Your task to perform on an android device: check the backup settings in the google photos Image 0: 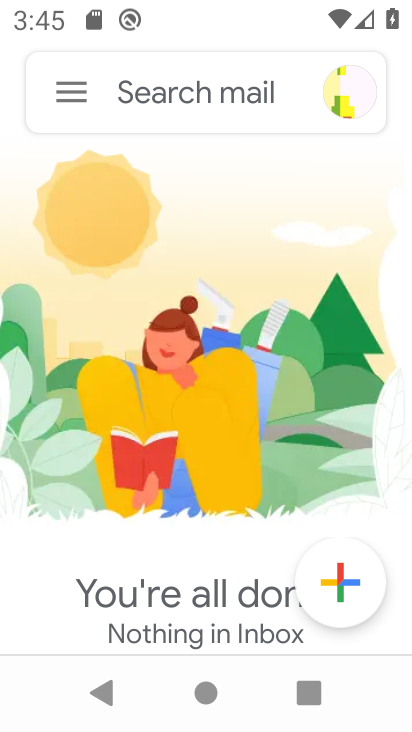
Step 0: press home button
Your task to perform on an android device: check the backup settings in the google photos Image 1: 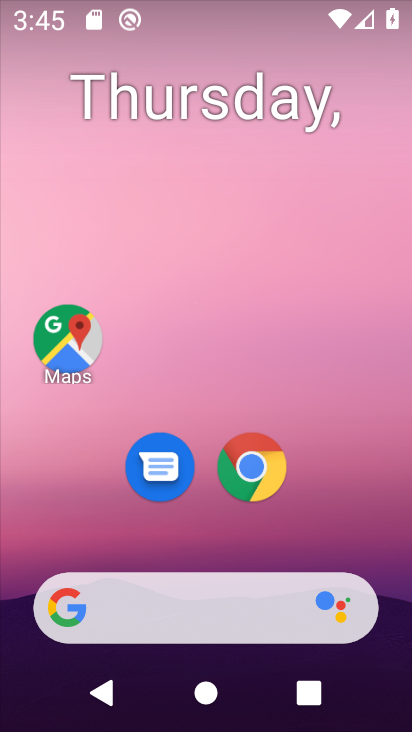
Step 1: drag from (173, 538) to (274, 5)
Your task to perform on an android device: check the backup settings in the google photos Image 2: 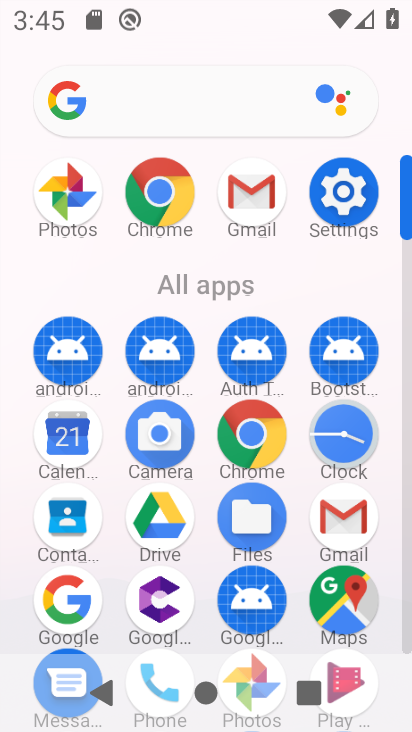
Step 2: click (344, 196)
Your task to perform on an android device: check the backup settings in the google photos Image 3: 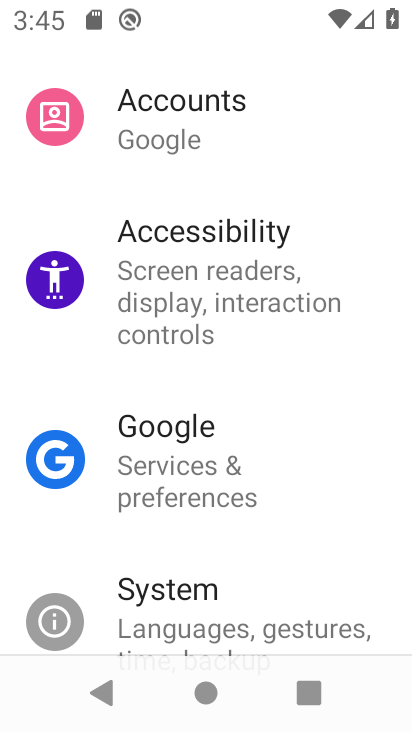
Step 3: press home button
Your task to perform on an android device: check the backup settings in the google photos Image 4: 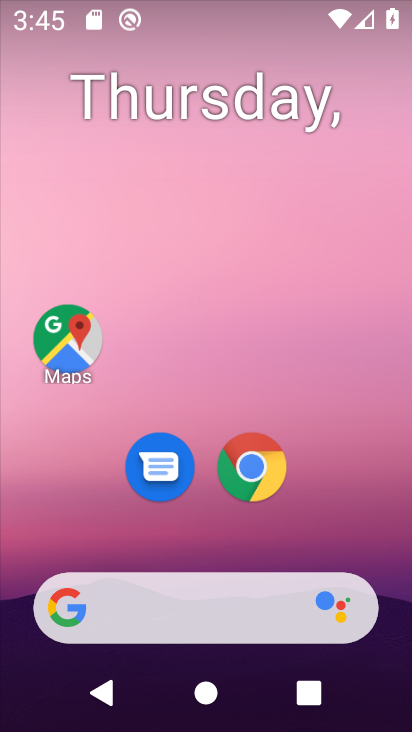
Step 4: drag from (176, 526) to (342, 11)
Your task to perform on an android device: check the backup settings in the google photos Image 5: 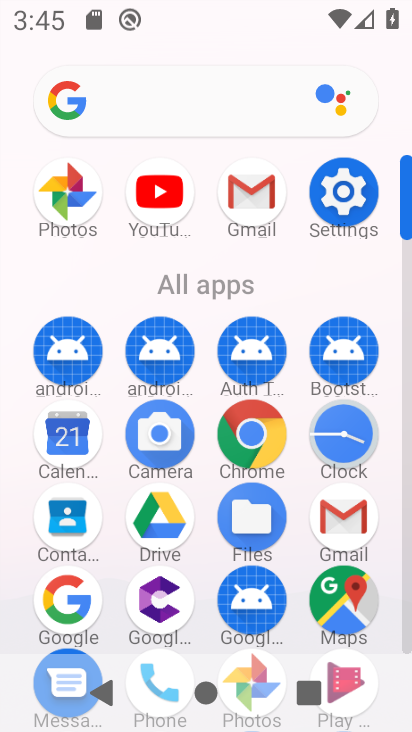
Step 5: drag from (202, 543) to (282, 129)
Your task to perform on an android device: check the backup settings in the google photos Image 6: 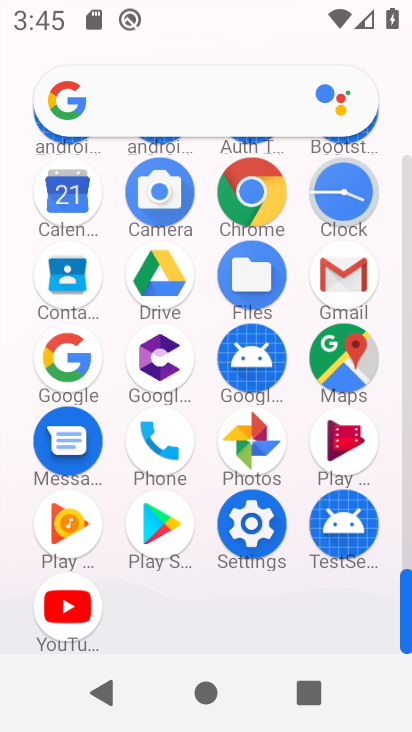
Step 6: click (275, 452)
Your task to perform on an android device: check the backup settings in the google photos Image 7: 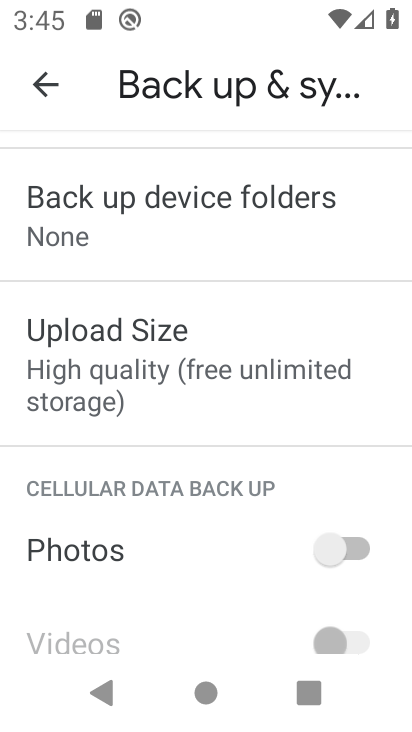
Step 7: click (125, 221)
Your task to perform on an android device: check the backup settings in the google photos Image 8: 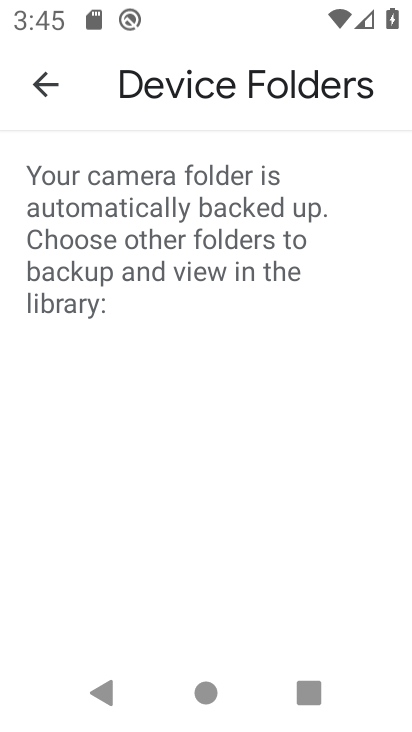
Step 8: click (35, 77)
Your task to perform on an android device: check the backup settings in the google photos Image 9: 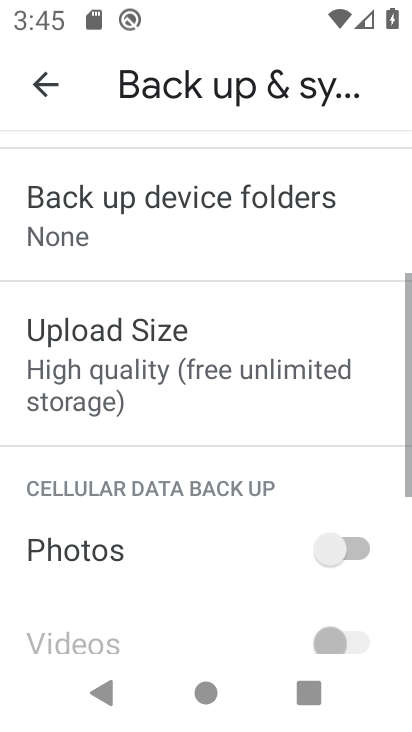
Step 9: task complete